Your task to perform on an android device: open app "Yahoo Mail" Image 0: 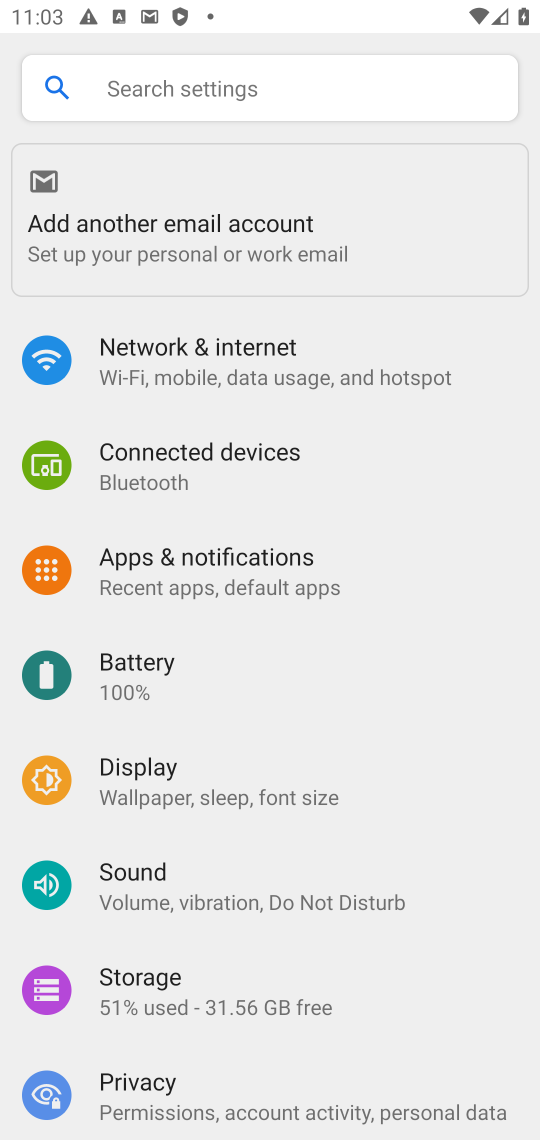
Step 0: press home button
Your task to perform on an android device: open app "Yahoo Mail" Image 1: 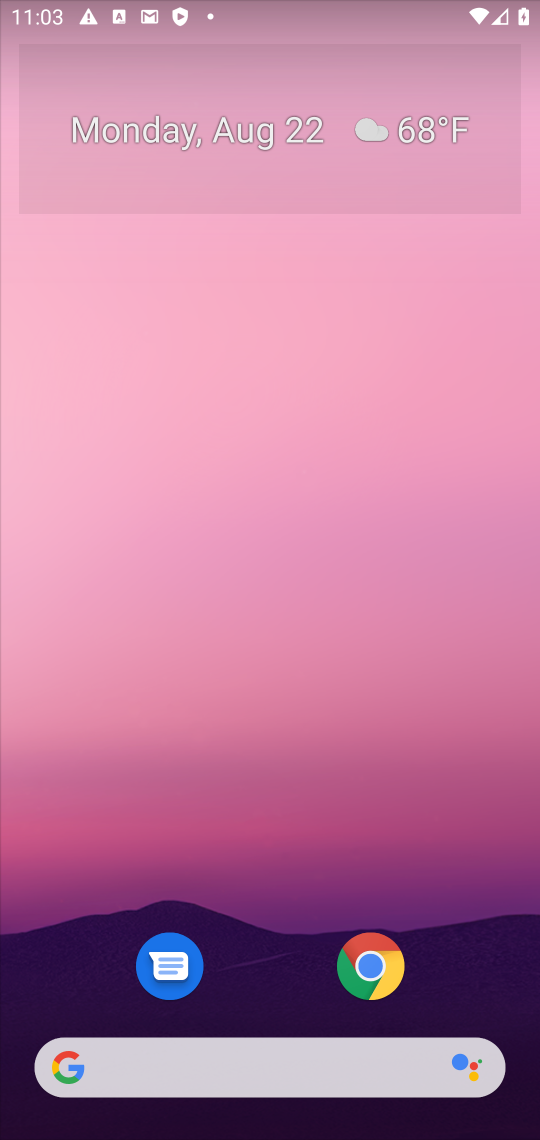
Step 1: drag from (446, 952) to (405, 131)
Your task to perform on an android device: open app "Yahoo Mail" Image 2: 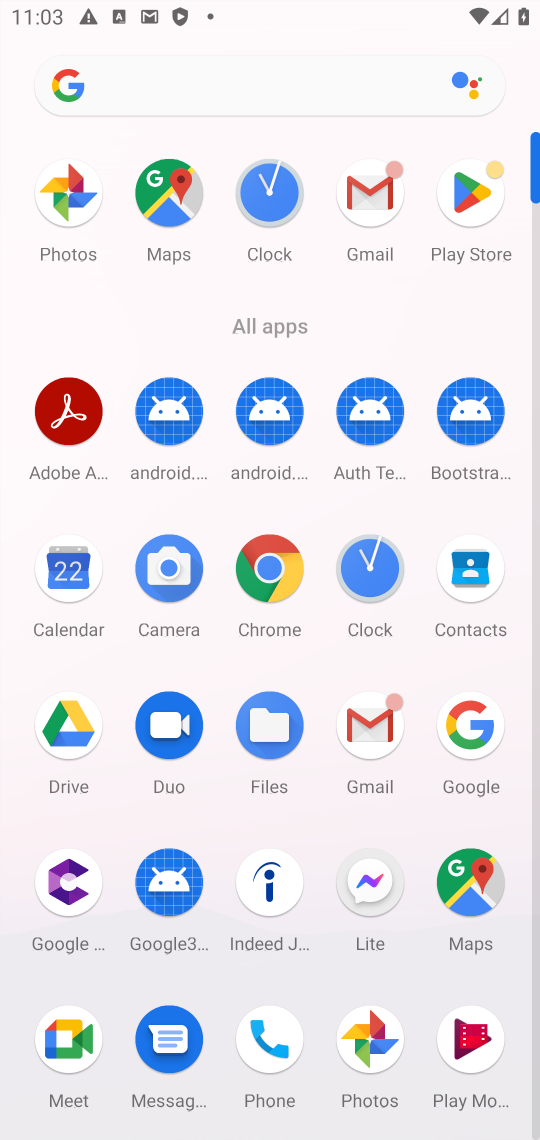
Step 2: click (478, 194)
Your task to perform on an android device: open app "Yahoo Mail" Image 3: 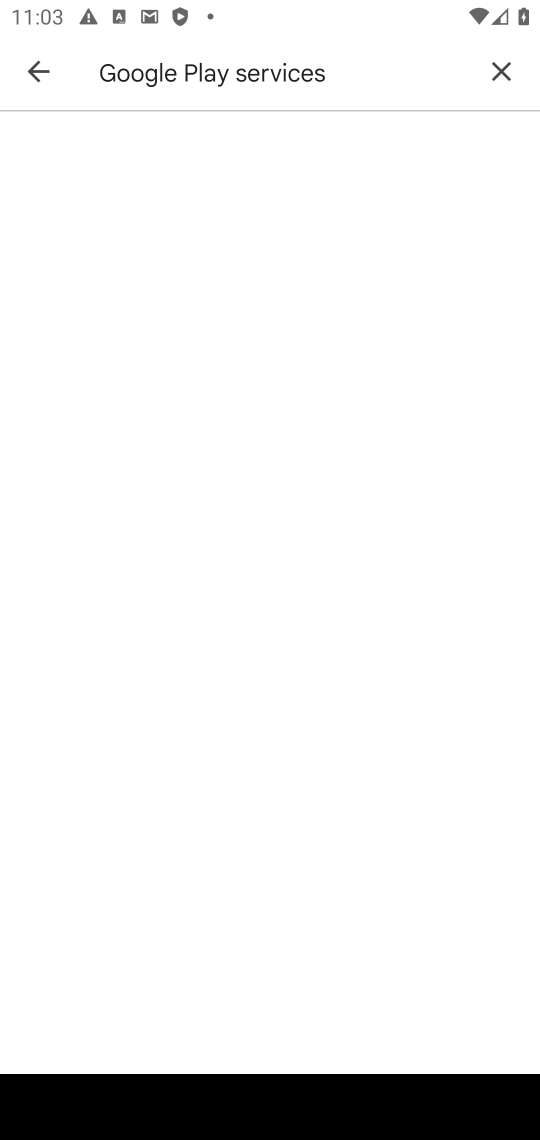
Step 3: press back button
Your task to perform on an android device: open app "Yahoo Mail" Image 4: 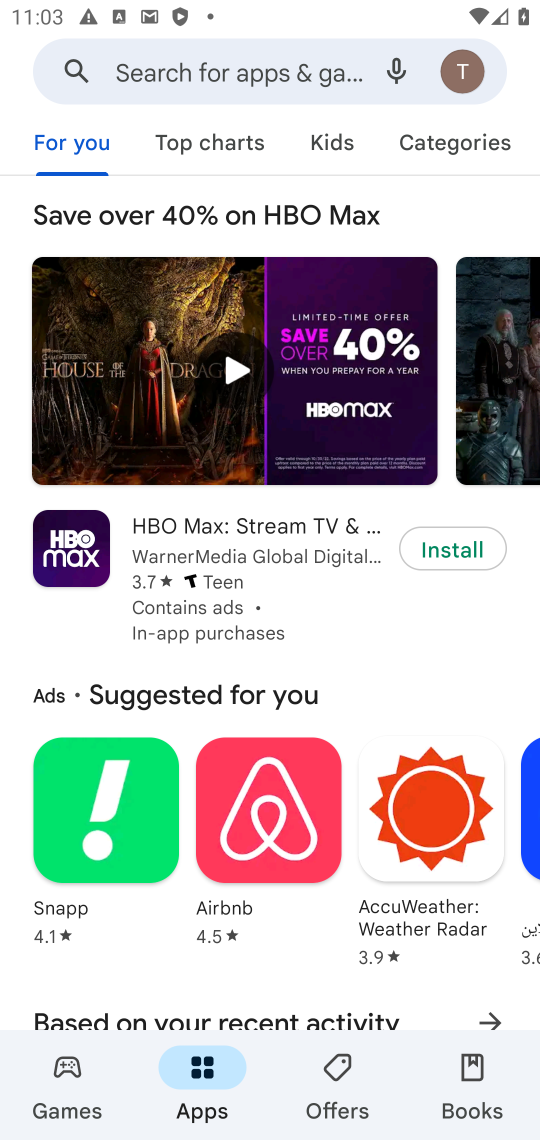
Step 4: click (206, 74)
Your task to perform on an android device: open app "Yahoo Mail" Image 5: 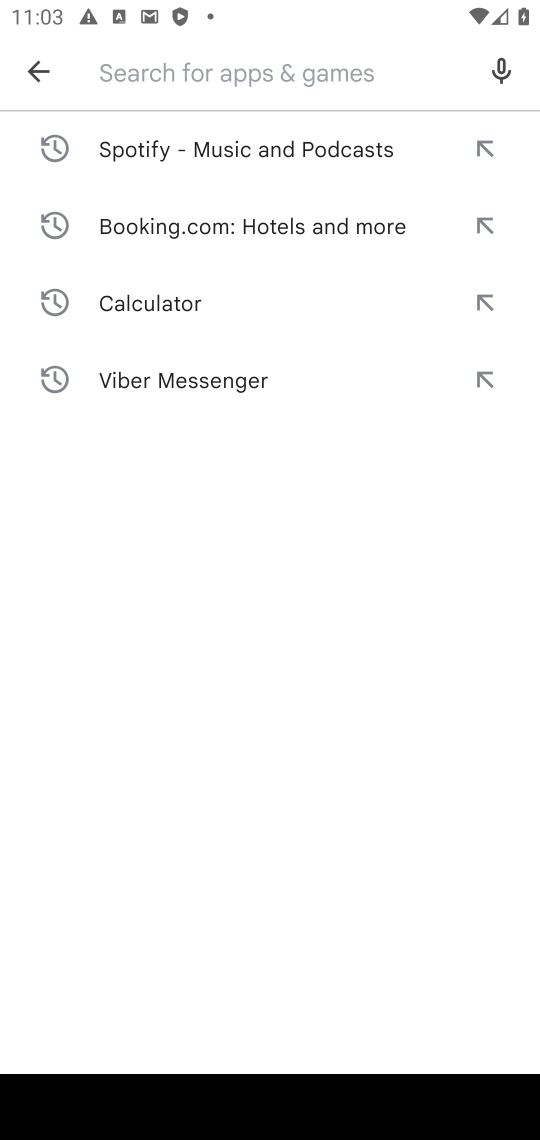
Step 5: type "Yahoo Mail"
Your task to perform on an android device: open app "Yahoo Mail" Image 6: 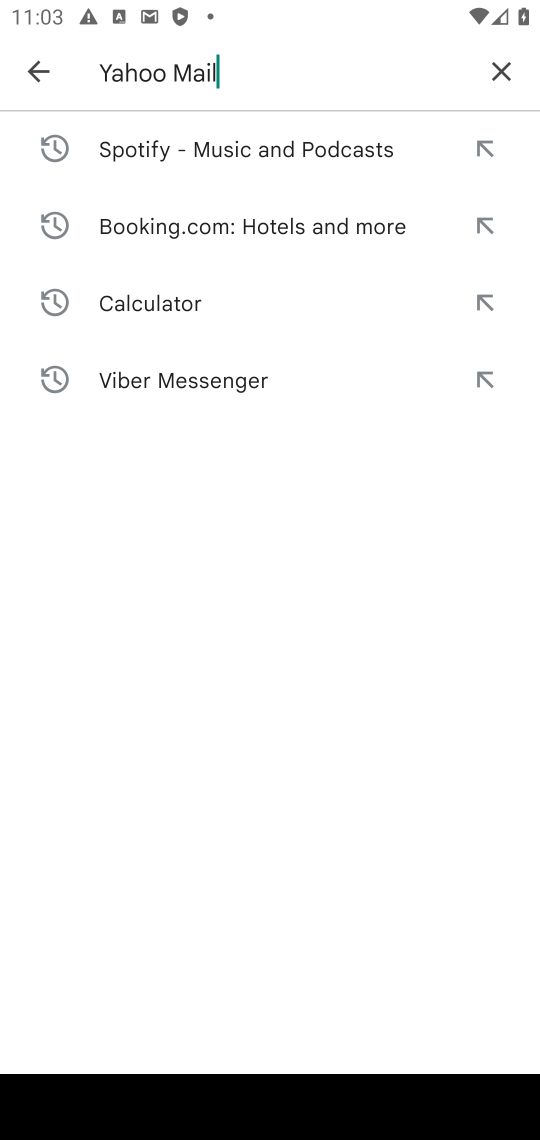
Step 6: press enter
Your task to perform on an android device: open app "Yahoo Mail" Image 7: 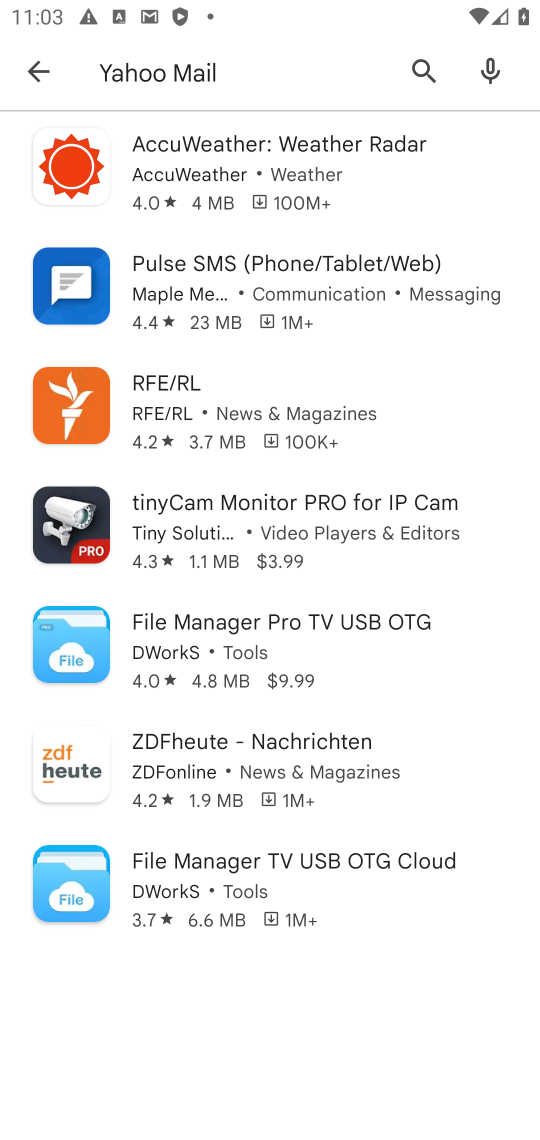
Step 7: task complete